Your task to perform on an android device: uninstall "Google Find My Device" Image 0: 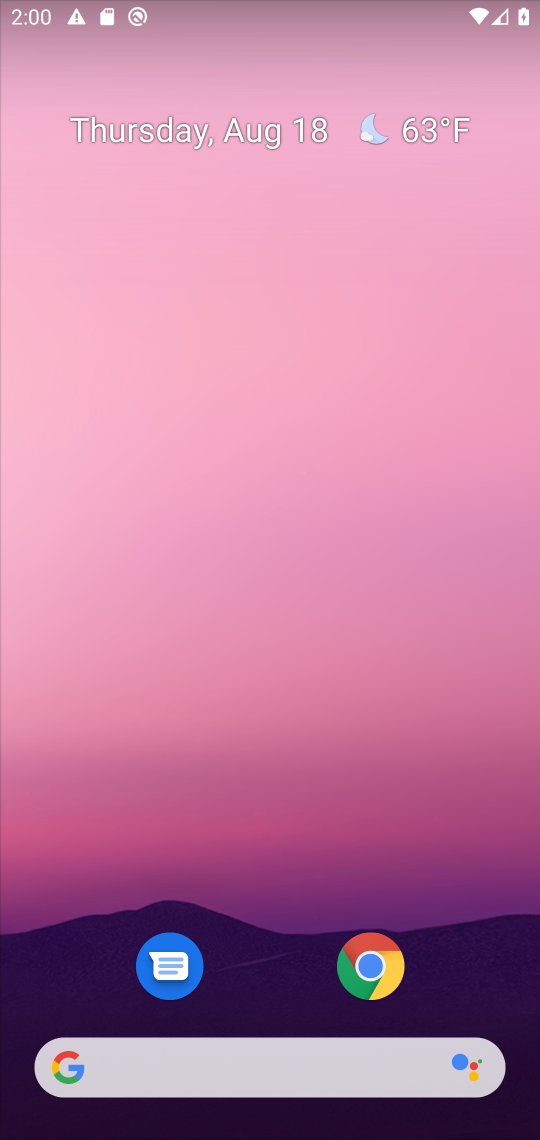
Step 0: drag from (286, 952) to (360, 60)
Your task to perform on an android device: uninstall "Google Find My Device" Image 1: 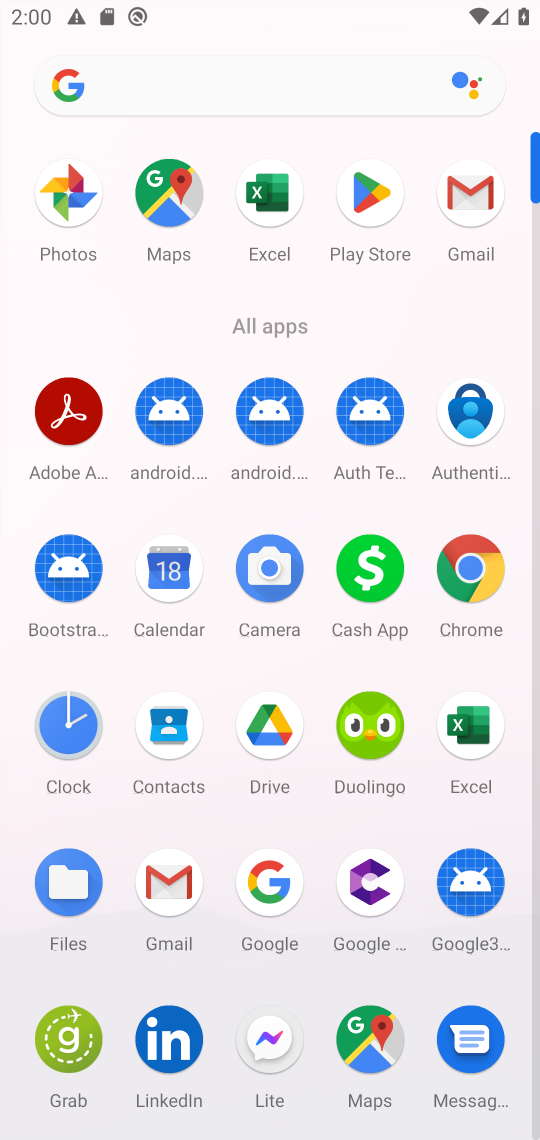
Step 1: click (372, 180)
Your task to perform on an android device: uninstall "Google Find My Device" Image 2: 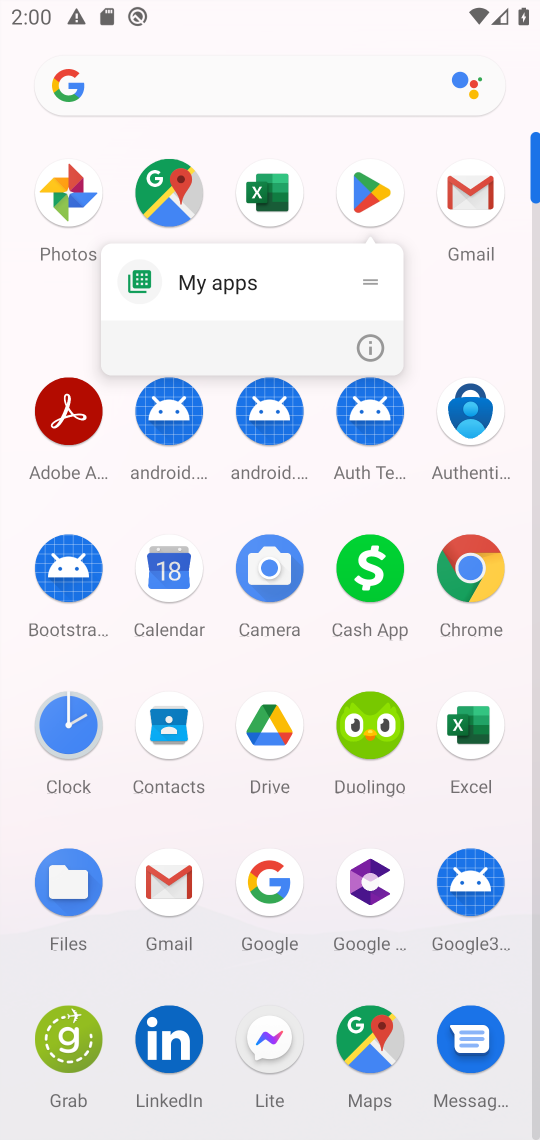
Step 2: click (370, 178)
Your task to perform on an android device: uninstall "Google Find My Device" Image 3: 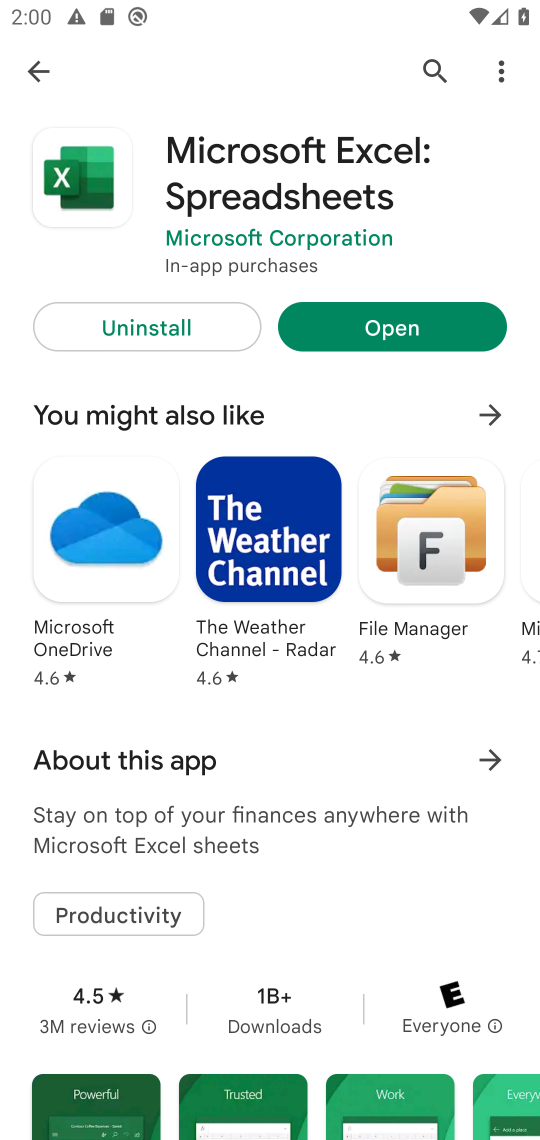
Step 3: click (441, 64)
Your task to perform on an android device: uninstall "Google Find My Device" Image 4: 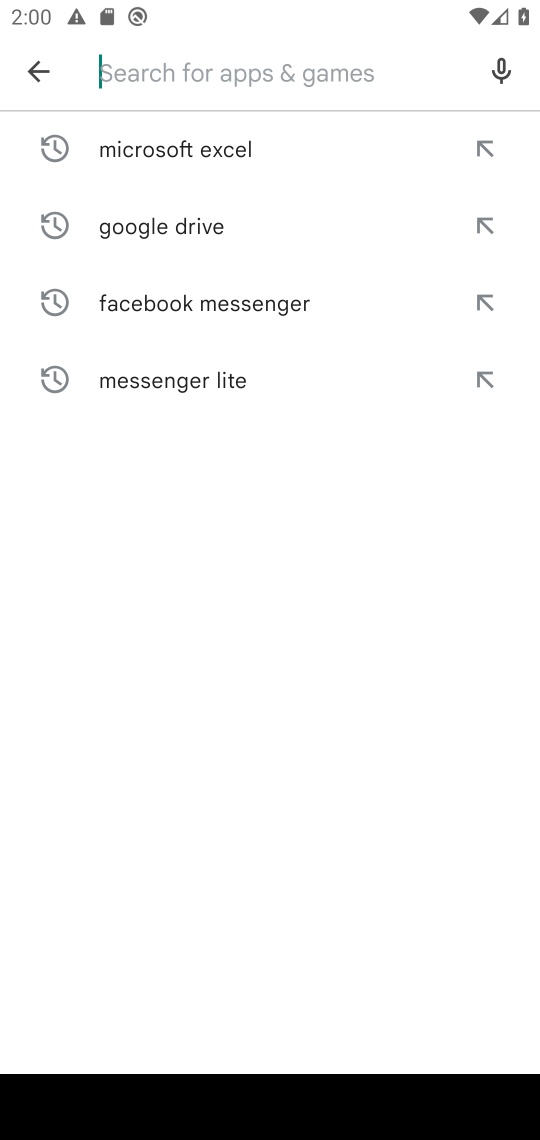
Step 4: type "Google Find My Device"
Your task to perform on an android device: uninstall "Google Find My Device" Image 5: 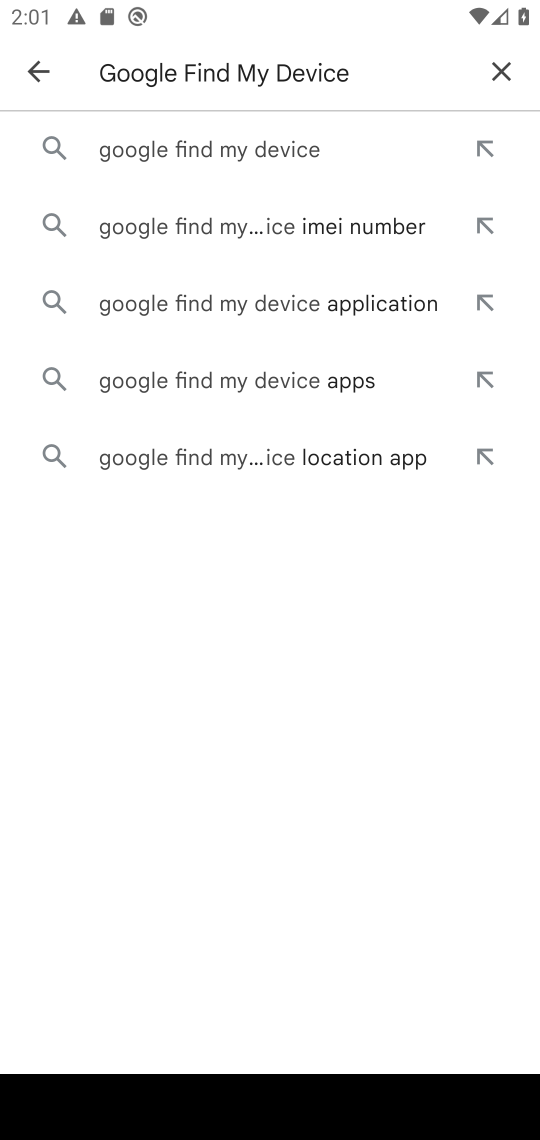
Step 5: click (204, 150)
Your task to perform on an android device: uninstall "Google Find My Device" Image 6: 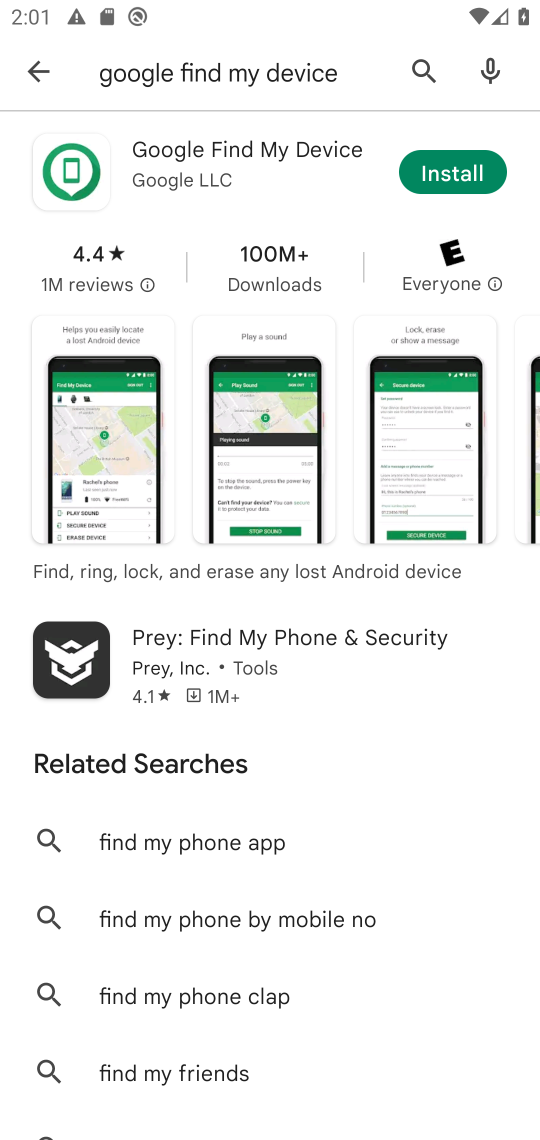
Step 6: click (475, 180)
Your task to perform on an android device: uninstall "Google Find My Device" Image 7: 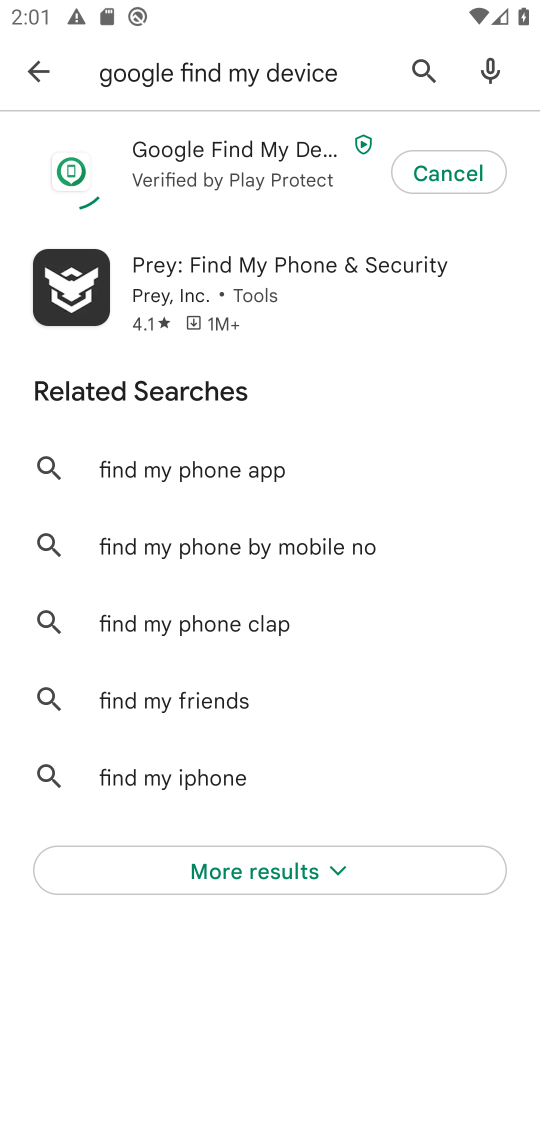
Step 7: click (442, 169)
Your task to perform on an android device: uninstall "Google Find My Device" Image 8: 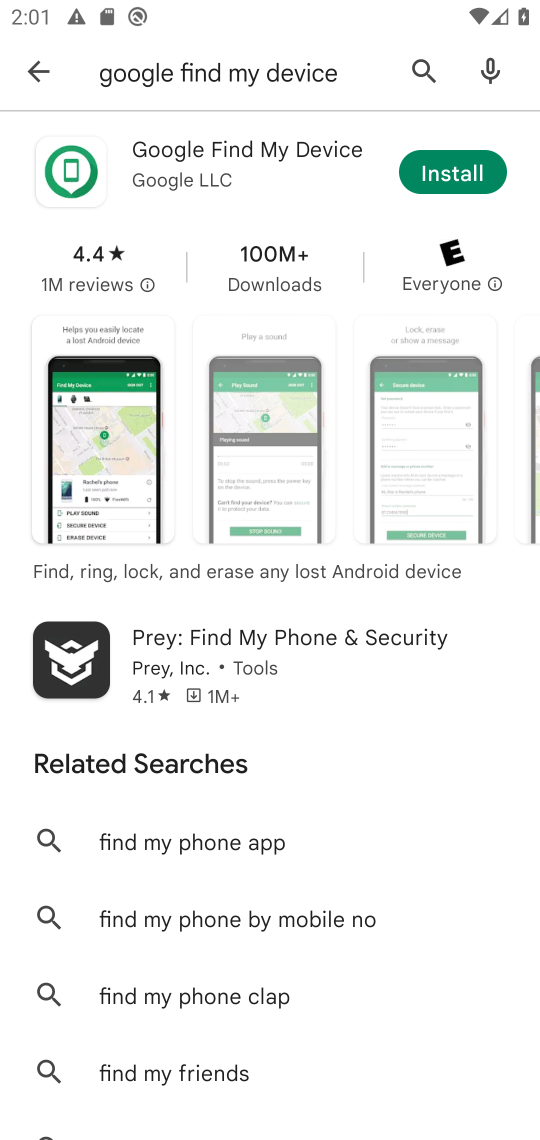
Step 8: task complete